Your task to perform on an android device: Open the map Image 0: 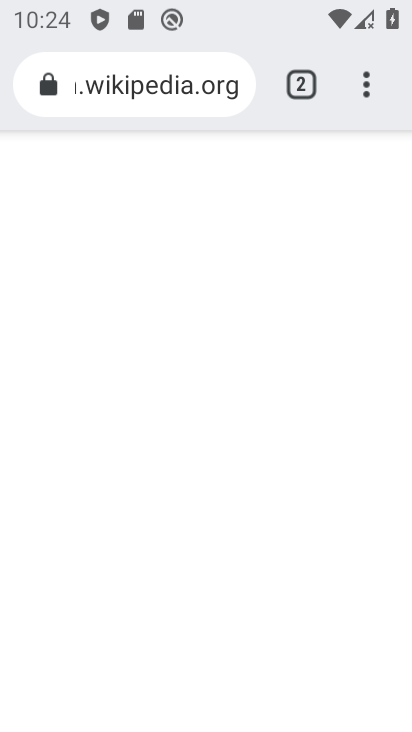
Step 0: press home button
Your task to perform on an android device: Open the map Image 1: 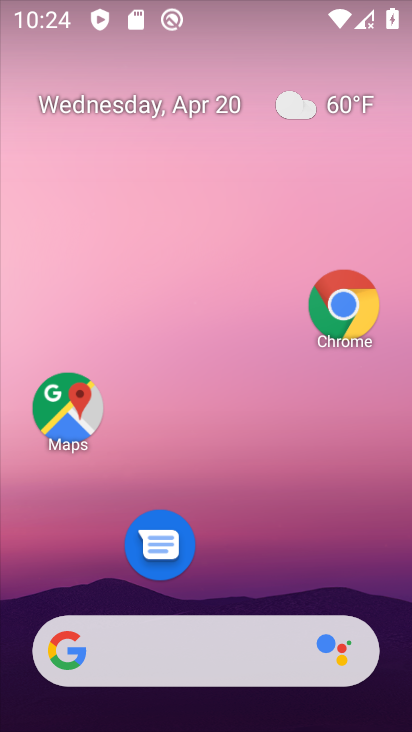
Step 1: drag from (220, 649) to (236, 162)
Your task to perform on an android device: Open the map Image 2: 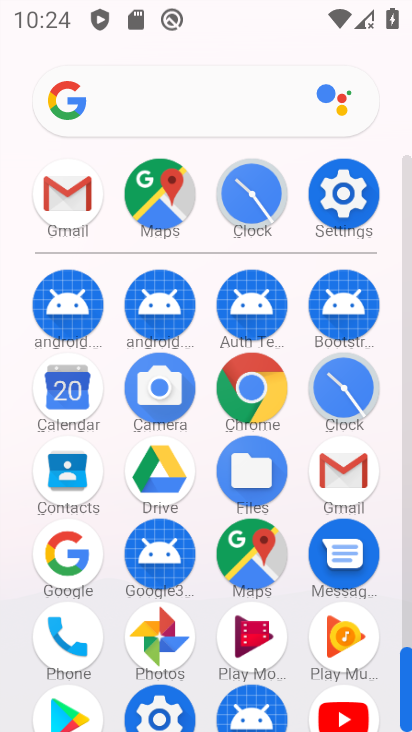
Step 2: drag from (177, 563) to (213, 209)
Your task to perform on an android device: Open the map Image 3: 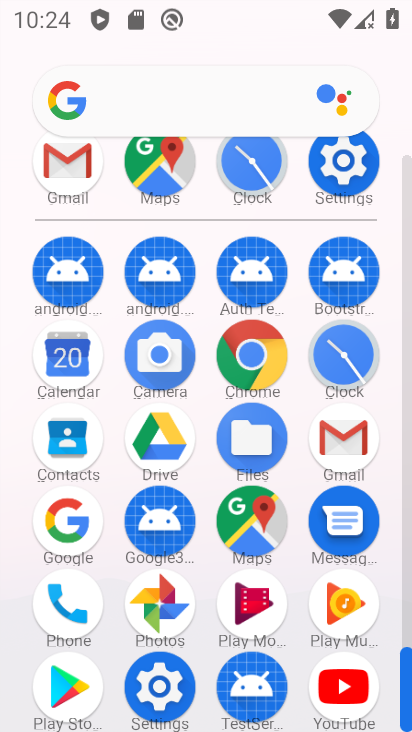
Step 3: click (248, 529)
Your task to perform on an android device: Open the map Image 4: 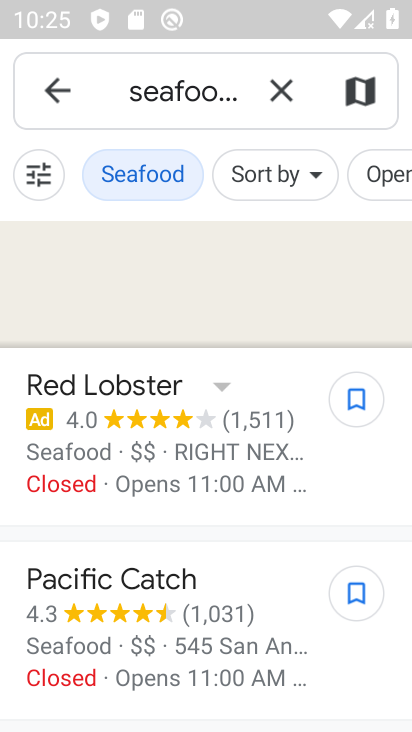
Step 4: task complete